Your task to perform on an android device: Open notification settings Image 0: 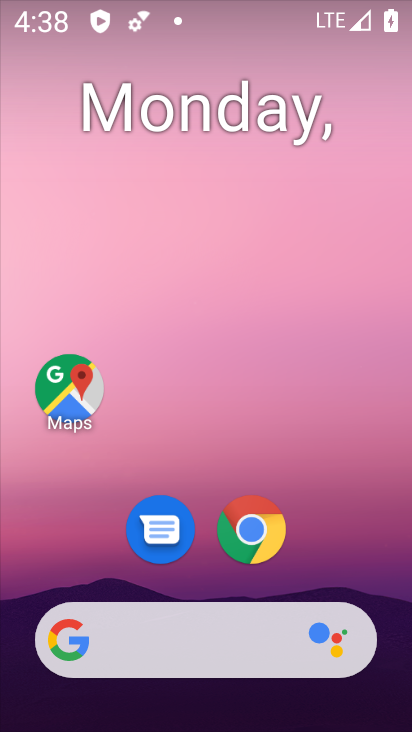
Step 0: drag from (333, 552) to (226, 200)
Your task to perform on an android device: Open notification settings Image 1: 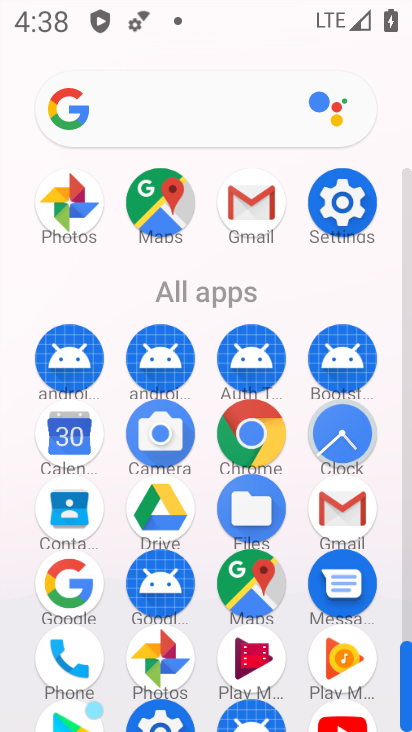
Step 1: click (337, 200)
Your task to perform on an android device: Open notification settings Image 2: 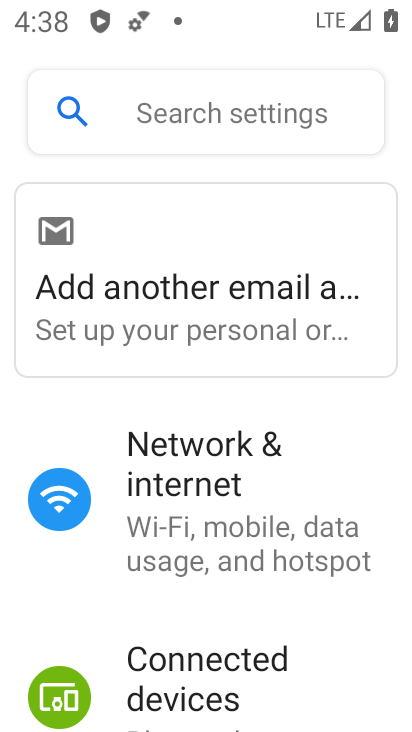
Step 2: drag from (251, 584) to (194, 198)
Your task to perform on an android device: Open notification settings Image 3: 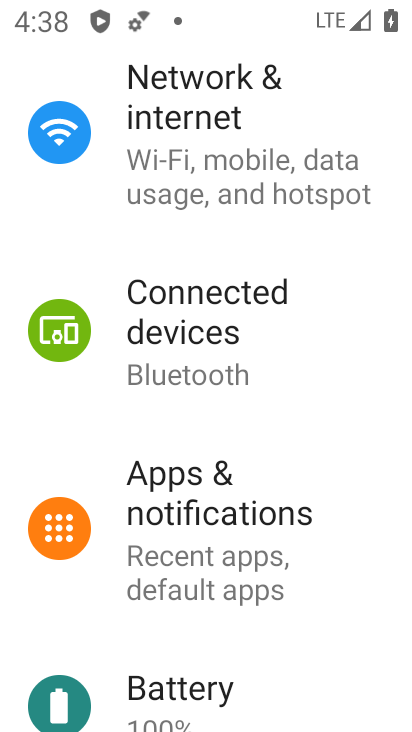
Step 3: click (230, 506)
Your task to perform on an android device: Open notification settings Image 4: 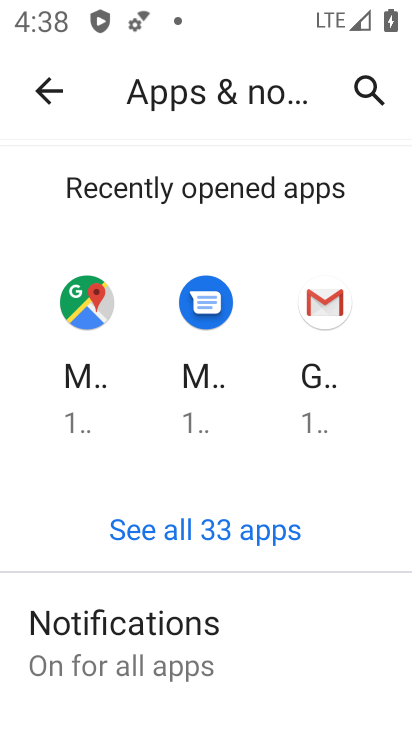
Step 4: drag from (320, 651) to (261, 515)
Your task to perform on an android device: Open notification settings Image 5: 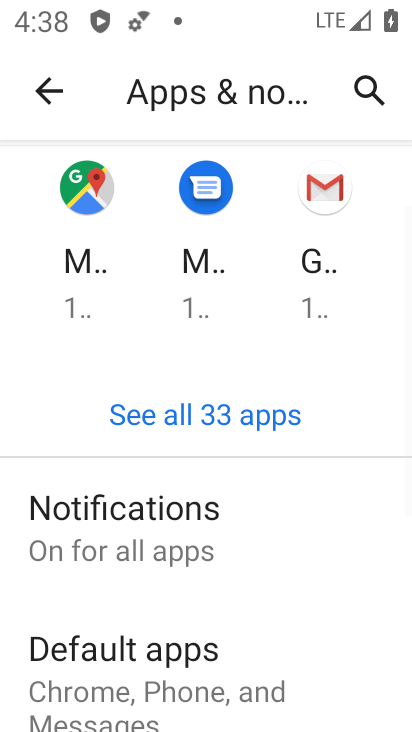
Step 5: click (261, 515)
Your task to perform on an android device: Open notification settings Image 6: 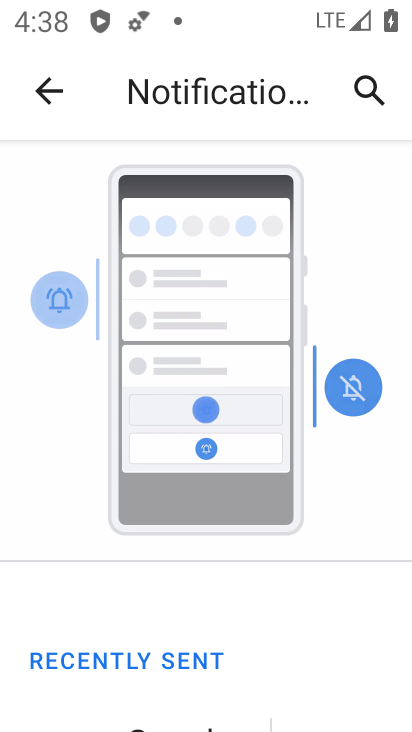
Step 6: task complete